Your task to perform on an android device: see sites visited before in the chrome app Image 0: 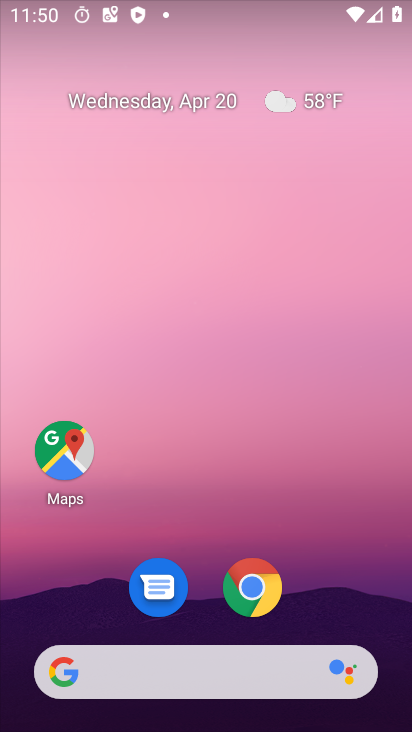
Step 0: drag from (206, 580) to (302, 4)
Your task to perform on an android device: see sites visited before in the chrome app Image 1: 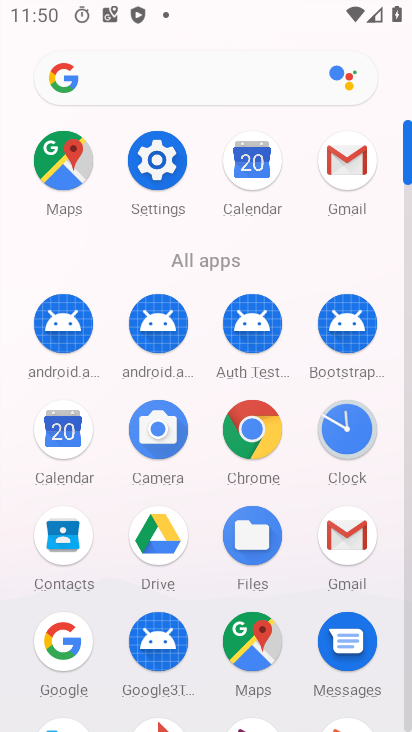
Step 1: click (253, 440)
Your task to perform on an android device: see sites visited before in the chrome app Image 2: 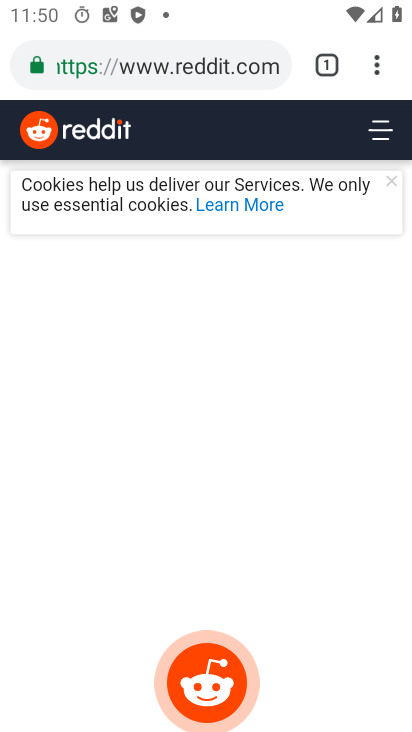
Step 2: click (386, 69)
Your task to perform on an android device: see sites visited before in the chrome app Image 3: 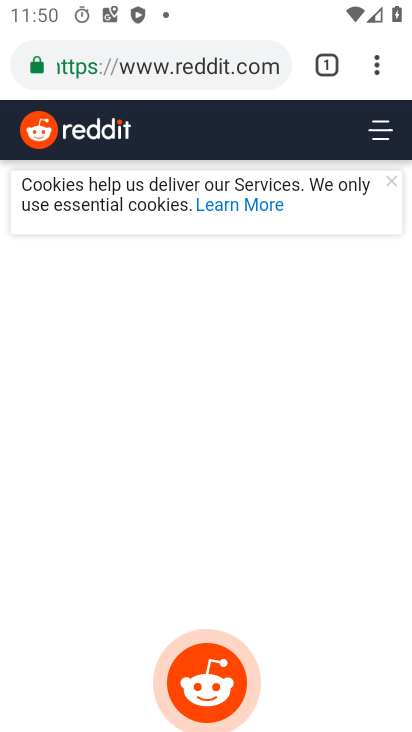
Step 3: click (380, 70)
Your task to perform on an android device: see sites visited before in the chrome app Image 4: 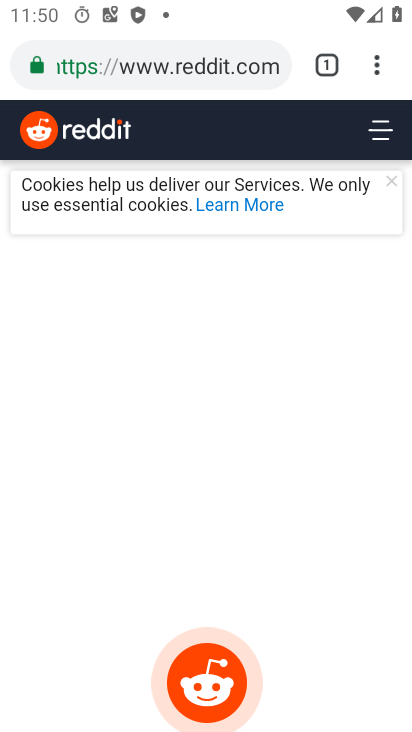
Step 4: click (374, 74)
Your task to perform on an android device: see sites visited before in the chrome app Image 5: 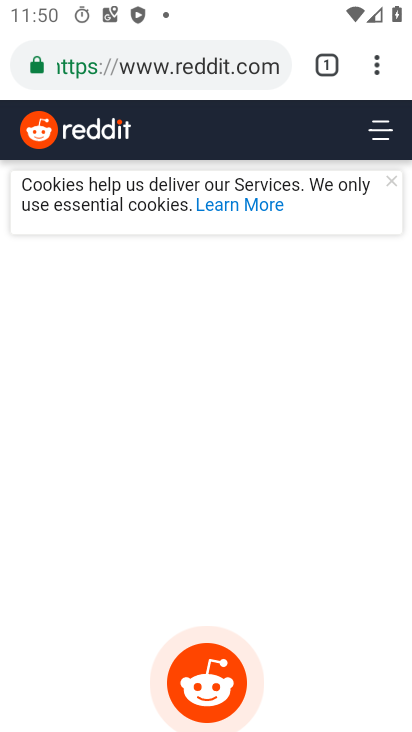
Step 5: click (376, 79)
Your task to perform on an android device: see sites visited before in the chrome app Image 6: 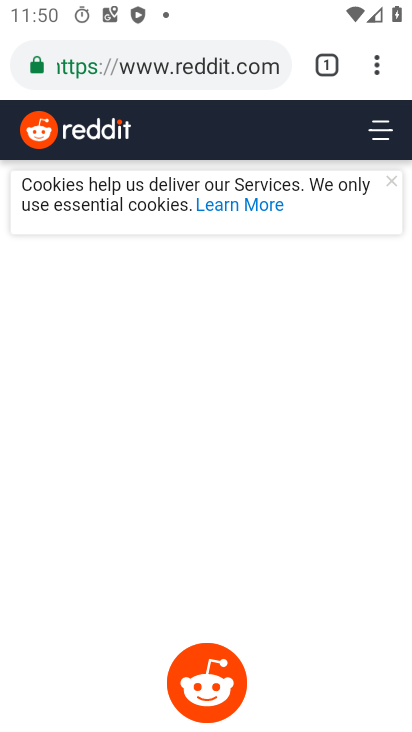
Step 6: click (379, 72)
Your task to perform on an android device: see sites visited before in the chrome app Image 7: 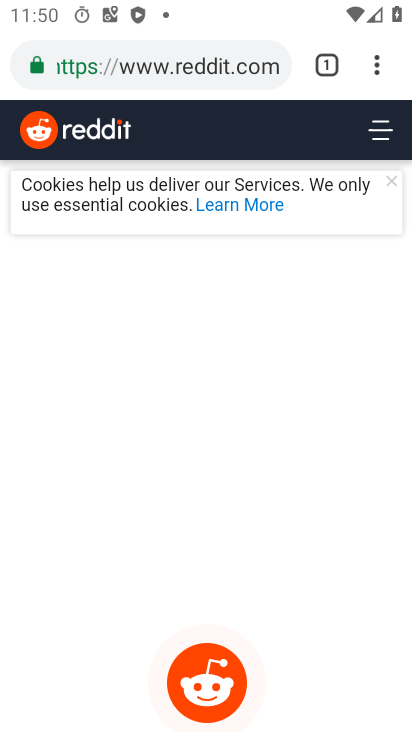
Step 7: click (379, 74)
Your task to perform on an android device: see sites visited before in the chrome app Image 8: 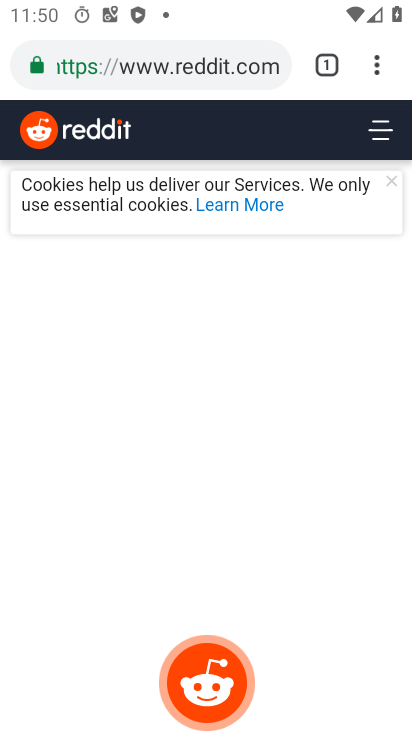
Step 8: click (381, 76)
Your task to perform on an android device: see sites visited before in the chrome app Image 9: 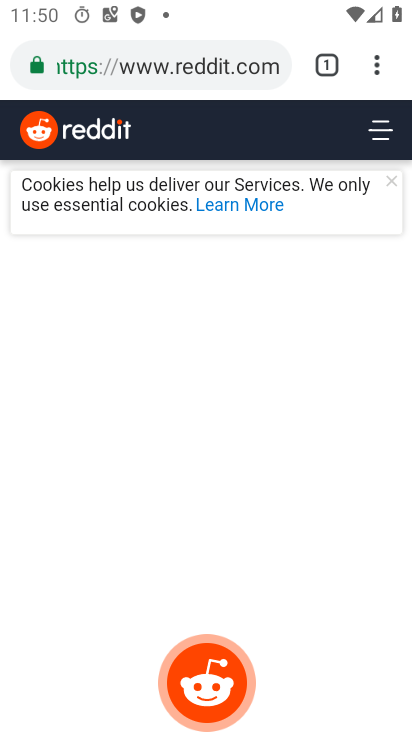
Step 9: click (386, 59)
Your task to perform on an android device: see sites visited before in the chrome app Image 10: 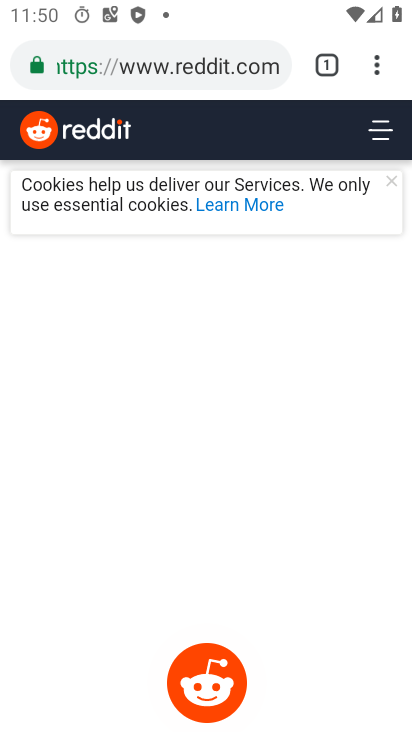
Step 10: click (385, 70)
Your task to perform on an android device: see sites visited before in the chrome app Image 11: 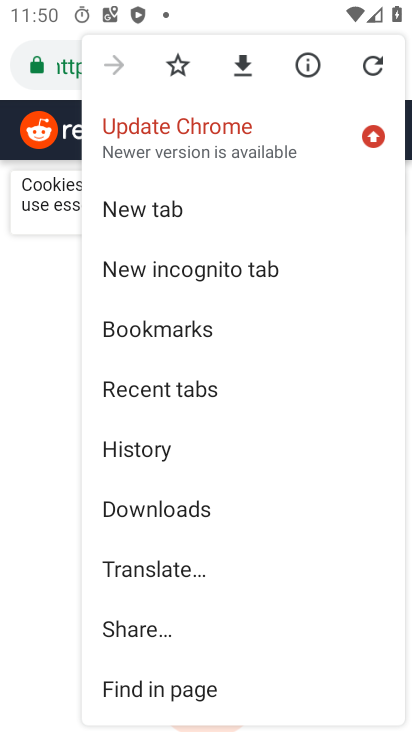
Step 11: drag from (167, 607) to (195, 237)
Your task to perform on an android device: see sites visited before in the chrome app Image 12: 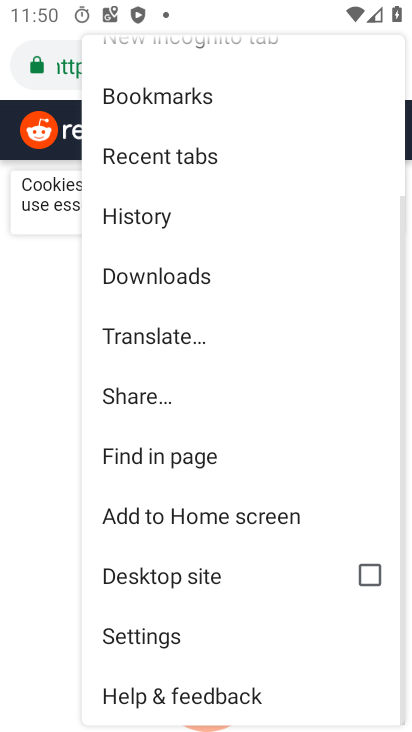
Step 12: click (165, 224)
Your task to perform on an android device: see sites visited before in the chrome app Image 13: 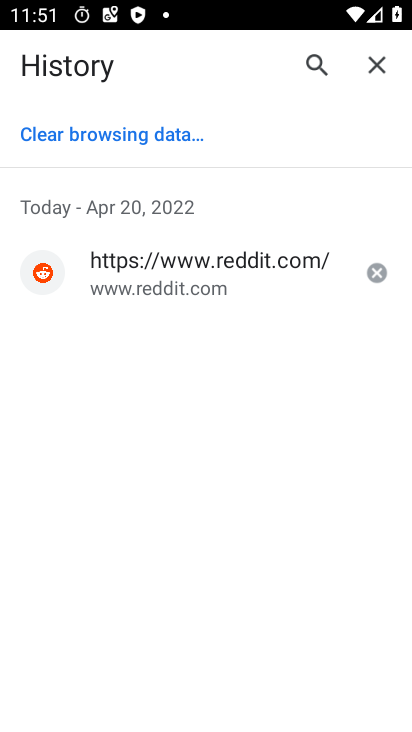
Step 13: task complete